Your task to perform on an android device: turn on bluetooth scan Image 0: 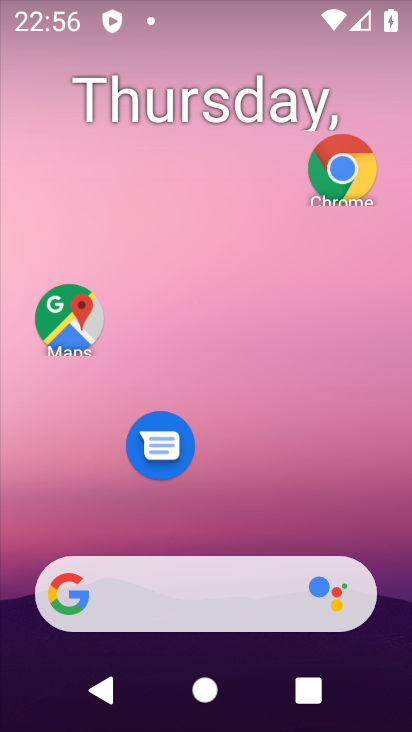
Step 0: drag from (224, 463) to (186, 10)
Your task to perform on an android device: turn on bluetooth scan Image 1: 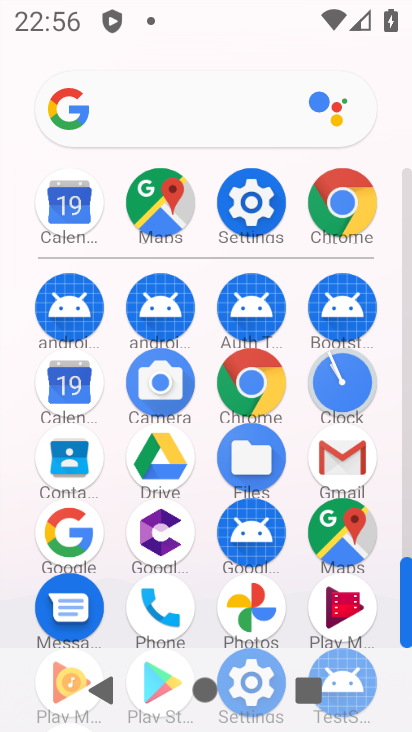
Step 1: click (257, 217)
Your task to perform on an android device: turn on bluetooth scan Image 2: 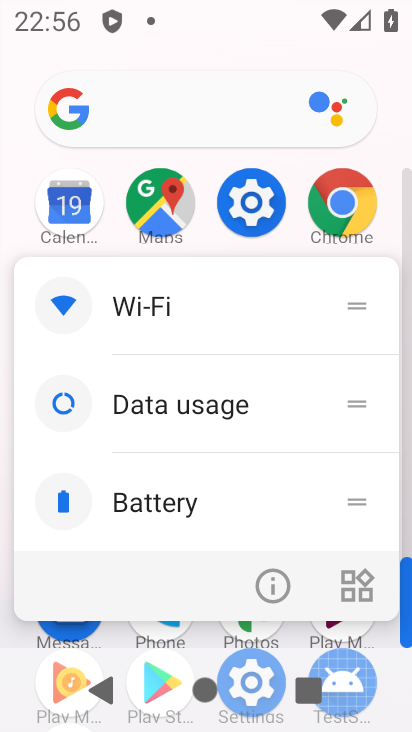
Step 2: click (263, 583)
Your task to perform on an android device: turn on bluetooth scan Image 3: 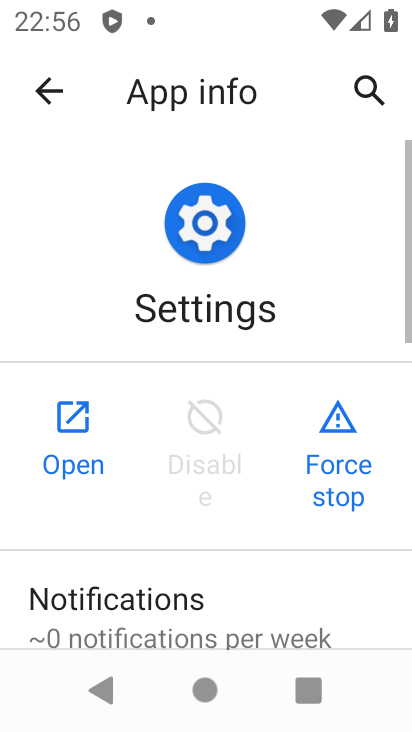
Step 3: click (96, 453)
Your task to perform on an android device: turn on bluetooth scan Image 4: 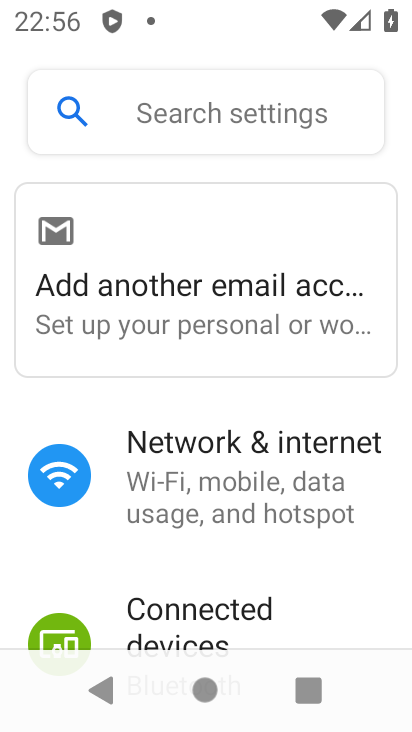
Step 4: drag from (229, 498) to (304, 13)
Your task to perform on an android device: turn on bluetooth scan Image 5: 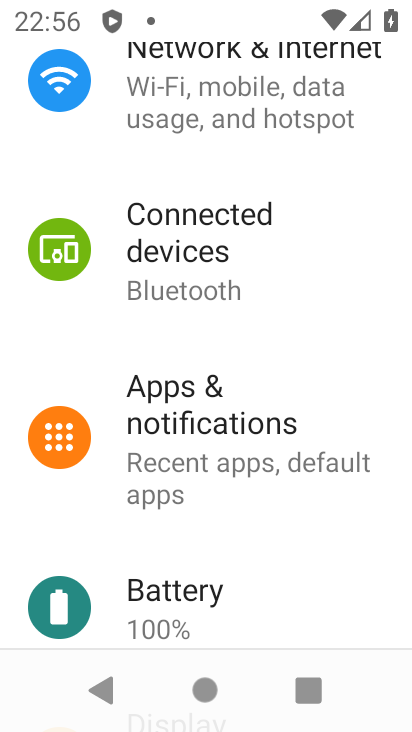
Step 5: drag from (187, 528) to (280, 53)
Your task to perform on an android device: turn on bluetooth scan Image 6: 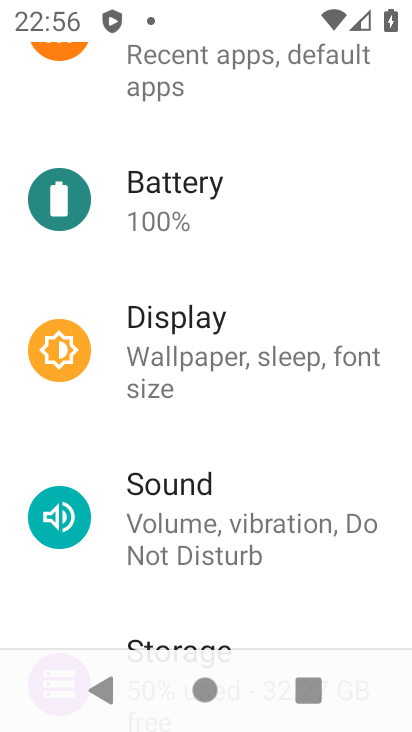
Step 6: drag from (227, 503) to (279, 87)
Your task to perform on an android device: turn on bluetooth scan Image 7: 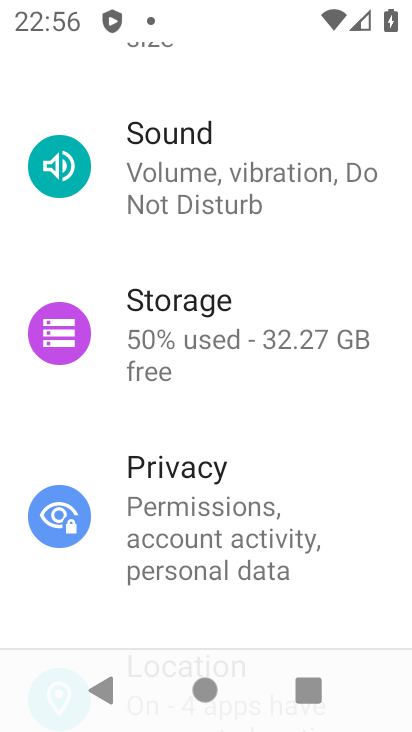
Step 7: drag from (232, 361) to (321, 22)
Your task to perform on an android device: turn on bluetooth scan Image 8: 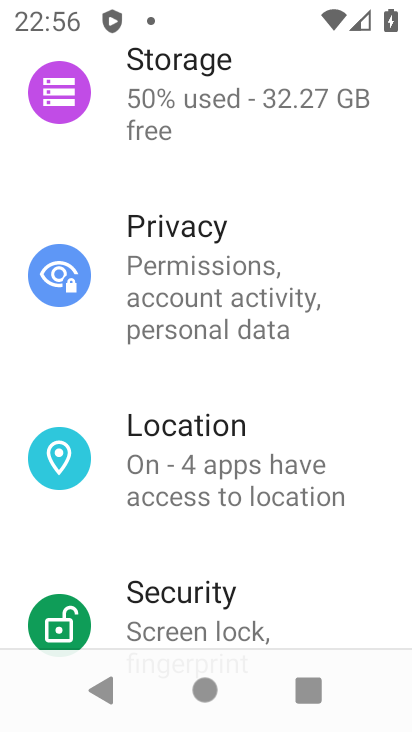
Step 8: click (187, 465)
Your task to perform on an android device: turn on bluetooth scan Image 9: 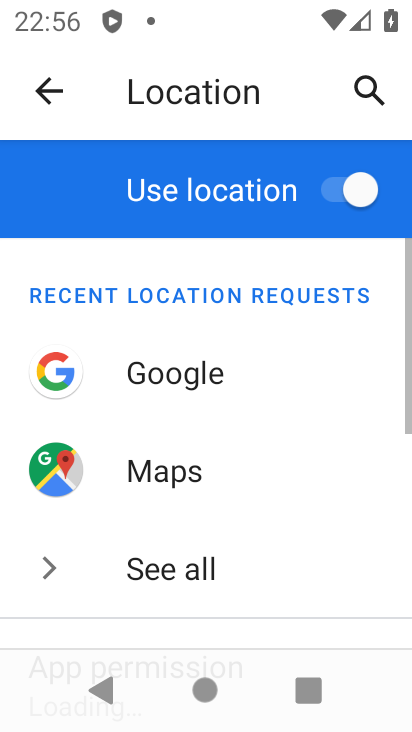
Step 9: drag from (248, 456) to (354, 9)
Your task to perform on an android device: turn on bluetooth scan Image 10: 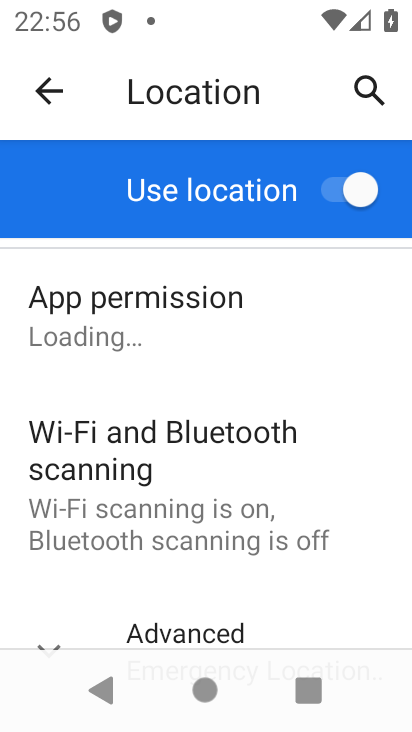
Step 10: drag from (251, 509) to (294, 209)
Your task to perform on an android device: turn on bluetooth scan Image 11: 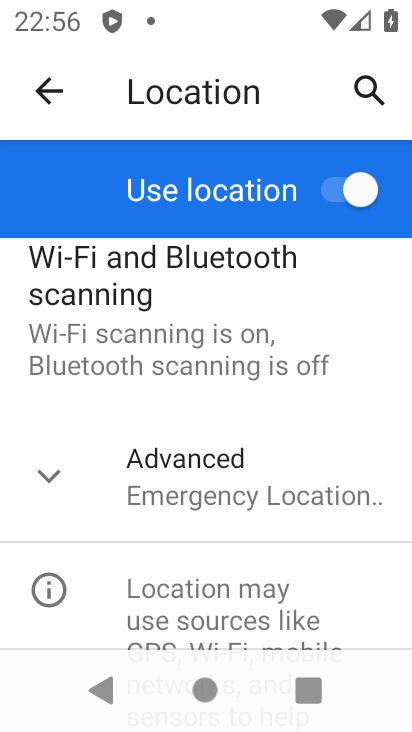
Step 11: click (191, 294)
Your task to perform on an android device: turn on bluetooth scan Image 12: 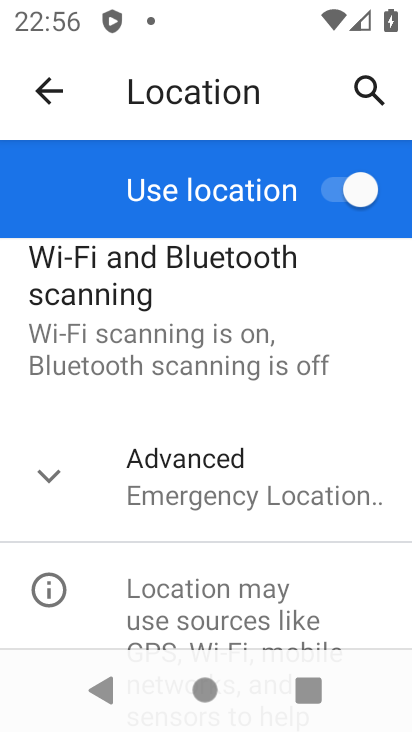
Step 12: click (191, 294)
Your task to perform on an android device: turn on bluetooth scan Image 13: 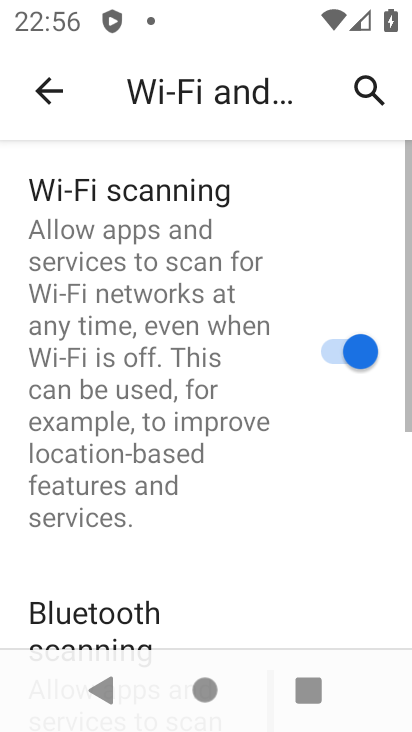
Step 13: drag from (289, 556) to (397, 84)
Your task to perform on an android device: turn on bluetooth scan Image 14: 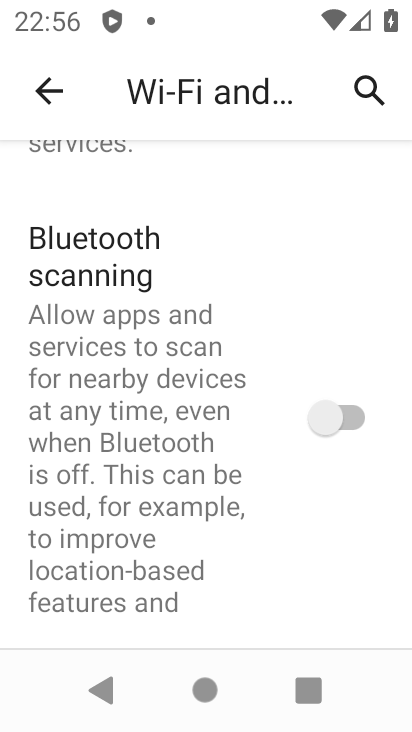
Step 14: click (328, 402)
Your task to perform on an android device: turn on bluetooth scan Image 15: 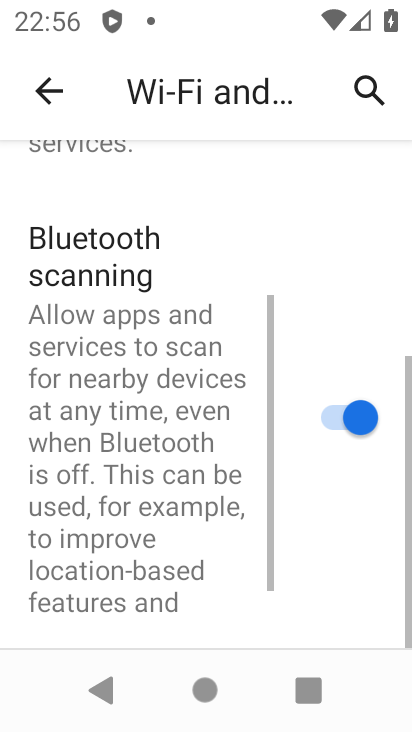
Step 15: task complete